Your task to perform on an android device: allow notifications from all sites in the chrome app Image 0: 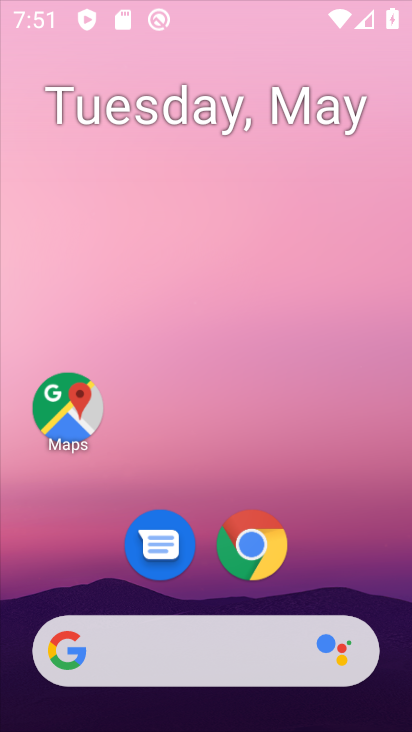
Step 0: click (250, 546)
Your task to perform on an android device: allow notifications from all sites in the chrome app Image 1: 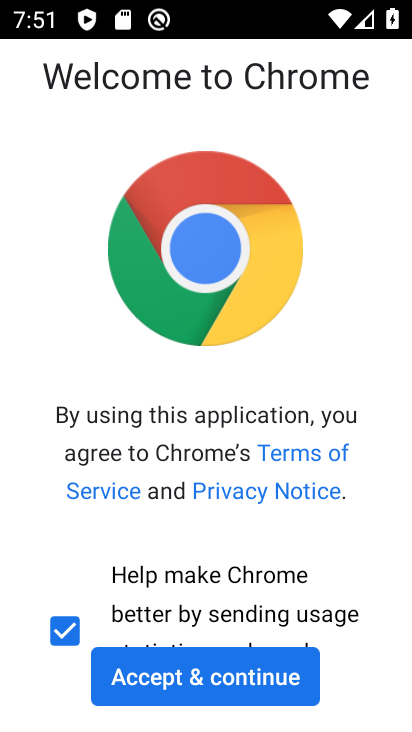
Step 1: click (203, 679)
Your task to perform on an android device: allow notifications from all sites in the chrome app Image 2: 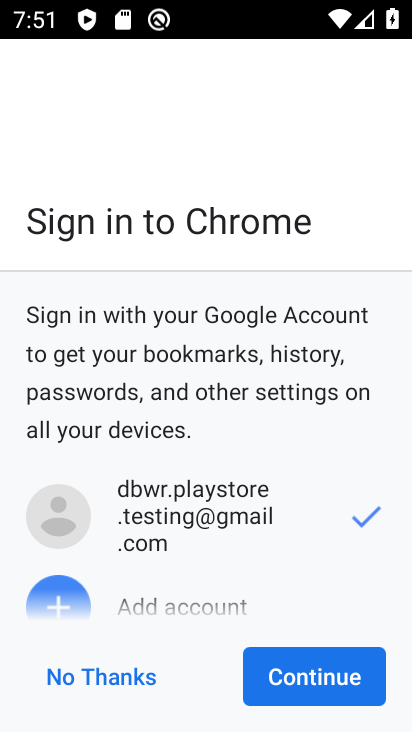
Step 2: click (311, 682)
Your task to perform on an android device: allow notifications from all sites in the chrome app Image 3: 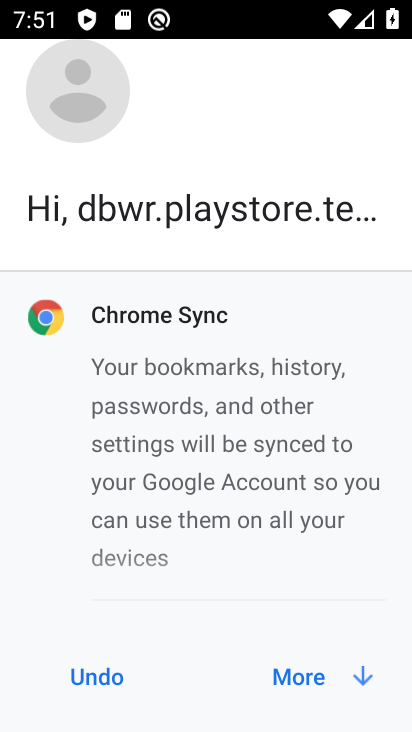
Step 3: click (342, 671)
Your task to perform on an android device: allow notifications from all sites in the chrome app Image 4: 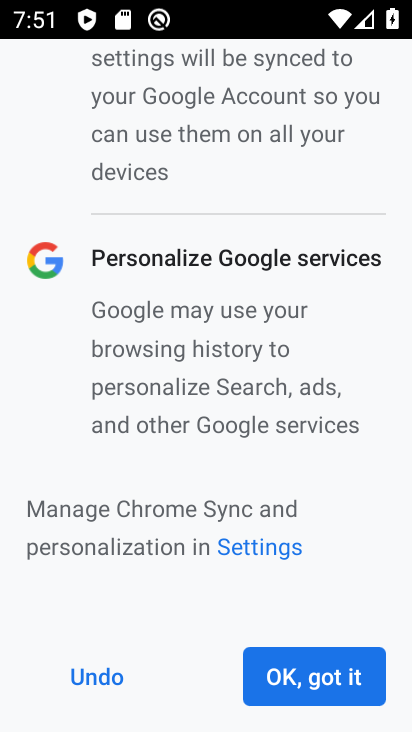
Step 4: click (342, 672)
Your task to perform on an android device: allow notifications from all sites in the chrome app Image 5: 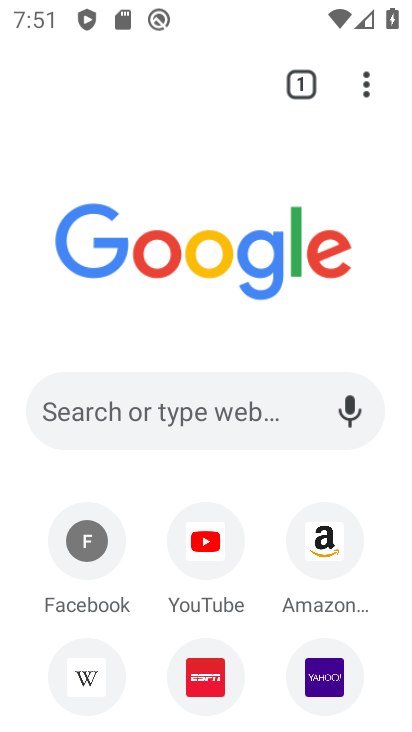
Step 5: drag from (365, 83) to (90, 584)
Your task to perform on an android device: allow notifications from all sites in the chrome app Image 6: 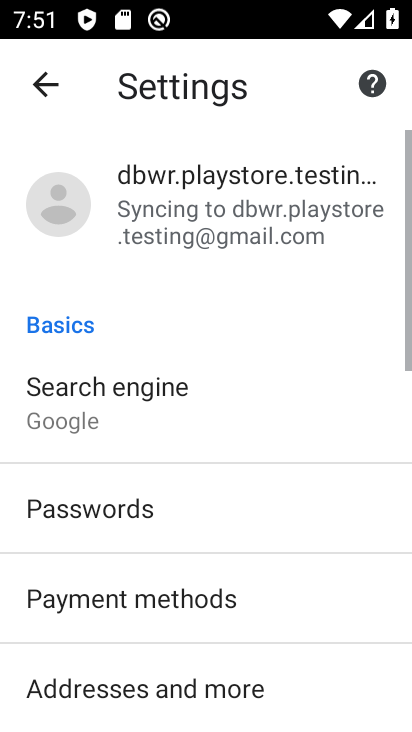
Step 6: drag from (144, 650) to (179, 177)
Your task to perform on an android device: allow notifications from all sites in the chrome app Image 7: 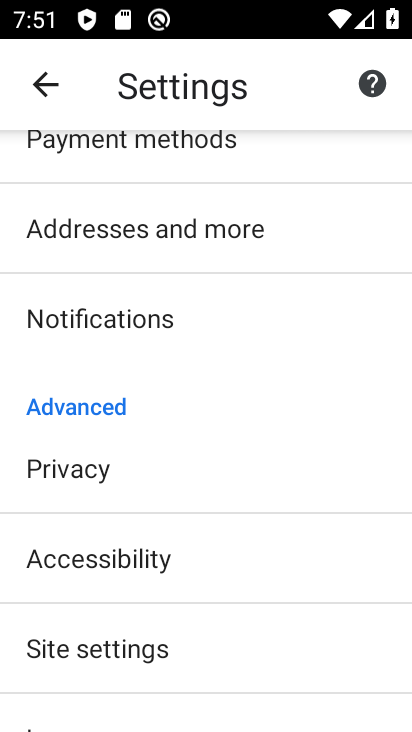
Step 7: click (143, 632)
Your task to perform on an android device: allow notifications from all sites in the chrome app Image 8: 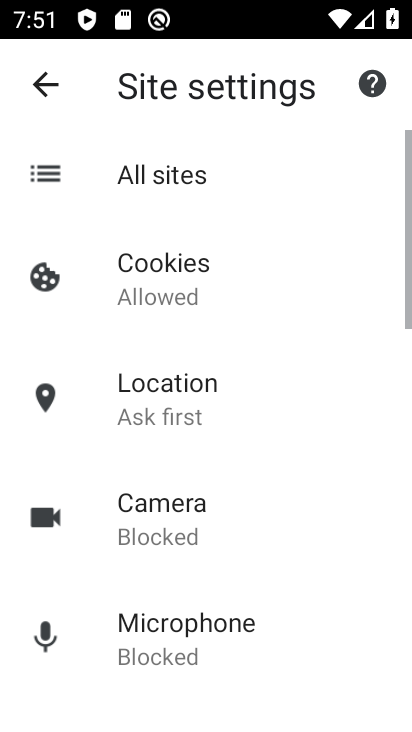
Step 8: click (179, 172)
Your task to perform on an android device: allow notifications from all sites in the chrome app Image 9: 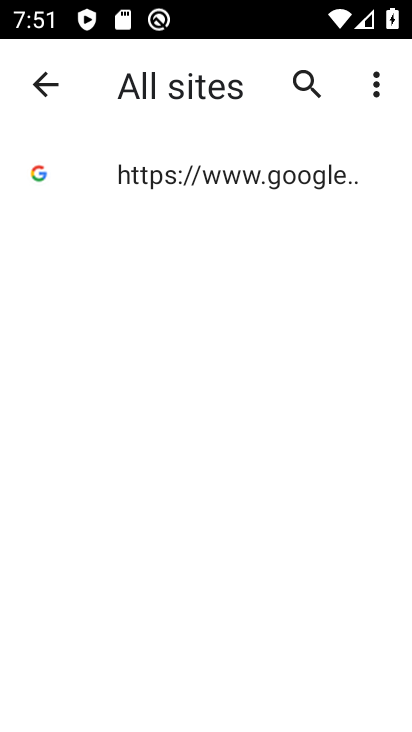
Step 9: click (179, 172)
Your task to perform on an android device: allow notifications from all sites in the chrome app Image 10: 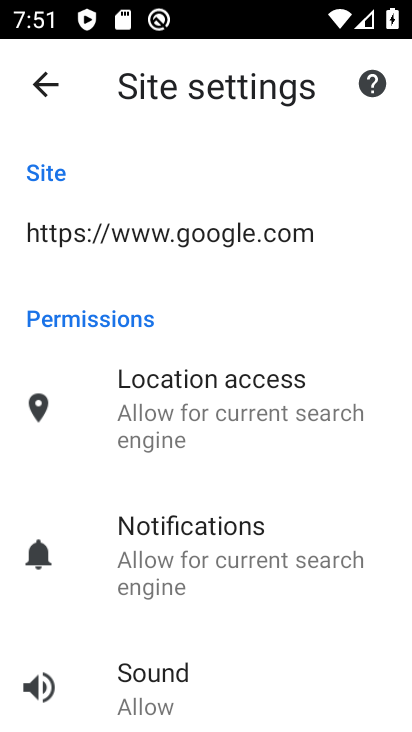
Step 10: click (208, 555)
Your task to perform on an android device: allow notifications from all sites in the chrome app Image 11: 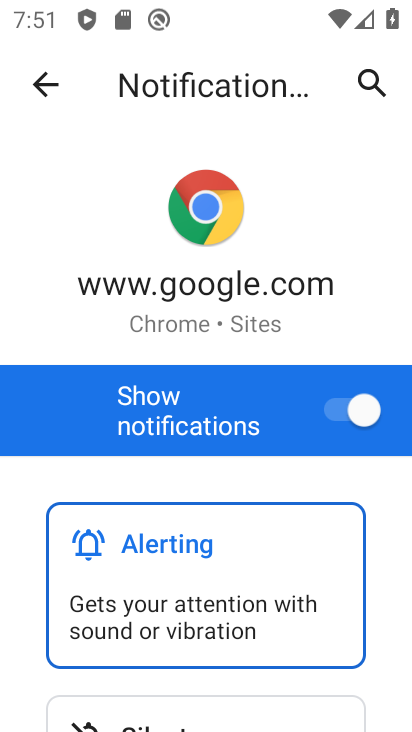
Step 11: task complete